Your task to perform on an android device: Open Google Chrome Image 0: 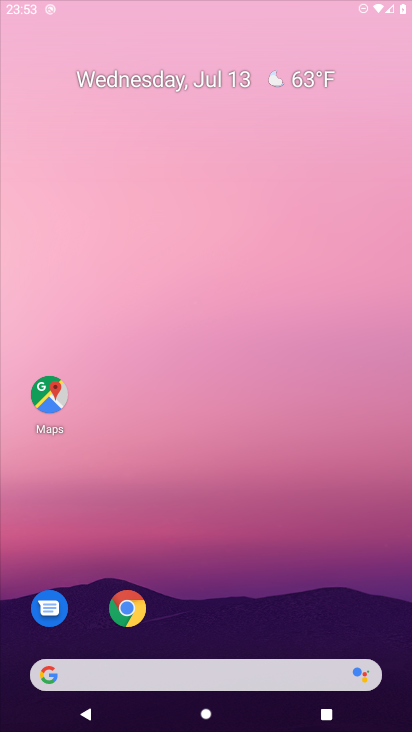
Step 0: press home button
Your task to perform on an android device: Open Google Chrome Image 1: 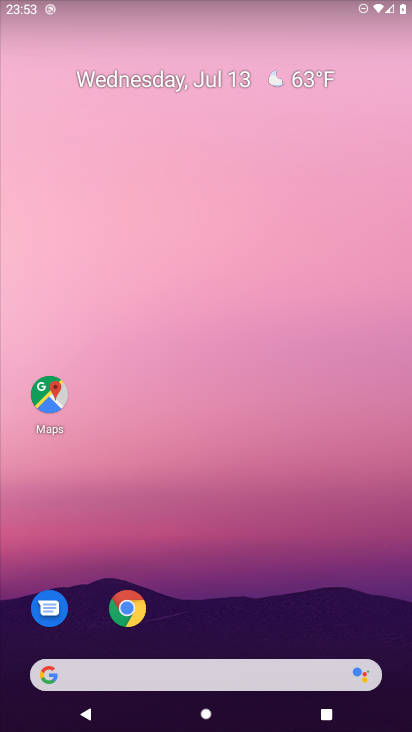
Step 1: drag from (277, 631) to (195, 60)
Your task to perform on an android device: Open Google Chrome Image 2: 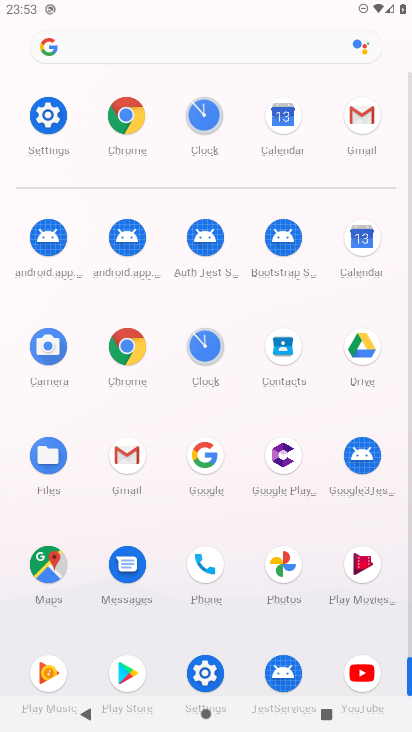
Step 2: click (122, 113)
Your task to perform on an android device: Open Google Chrome Image 3: 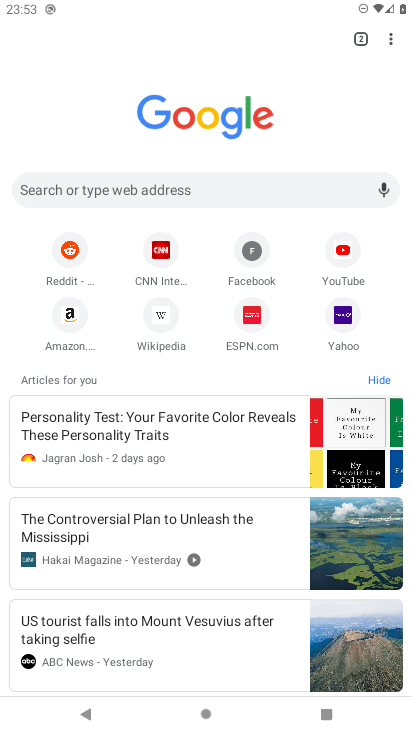
Step 3: task complete